Your task to perform on an android device: search for starred emails in the gmail app Image 0: 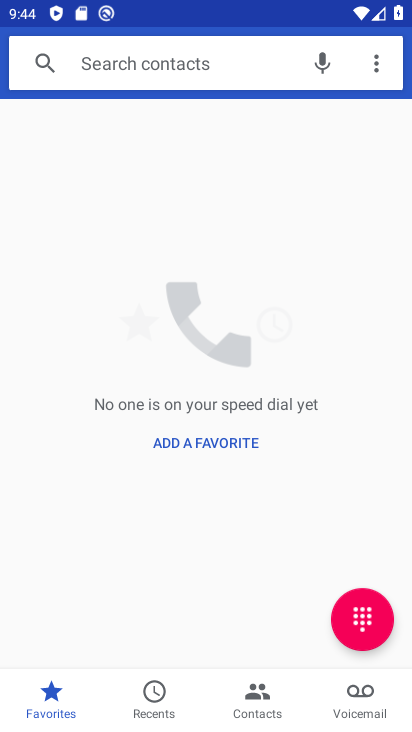
Step 0: press home button
Your task to perform on an android device: search for starred emails in the gmail app Image 1: 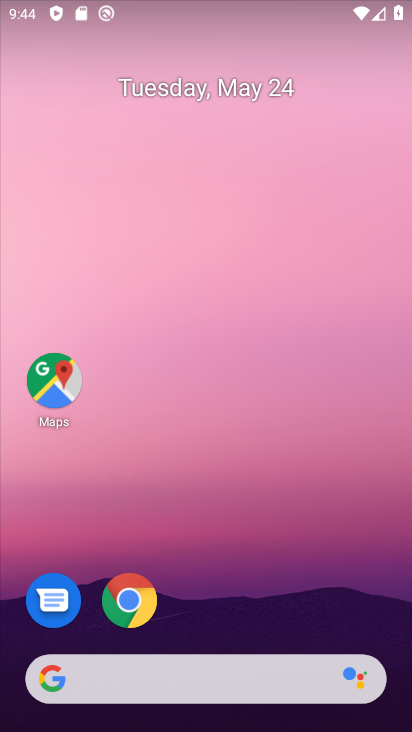
Step 1: drag from (241, 570) to (236, 20)
Your task to perform on an android device: search for starred emails in the gmail app Image 2: 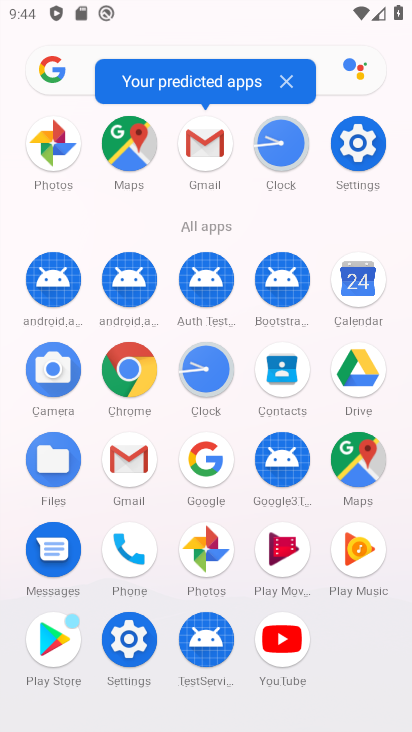
Step 2: click (204, 184)
Your task to perform on an android device: search for starred emails in the gmail app Image 3: 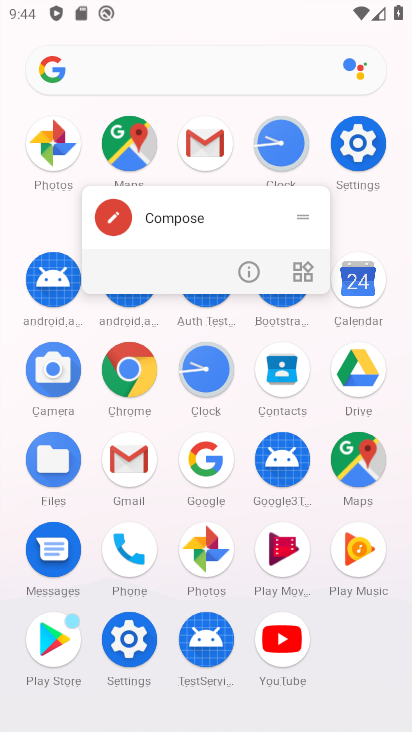
Step 3: click (214, 166)
Your task to perform on an android device: search for starred emails in the gmail app Image 4: 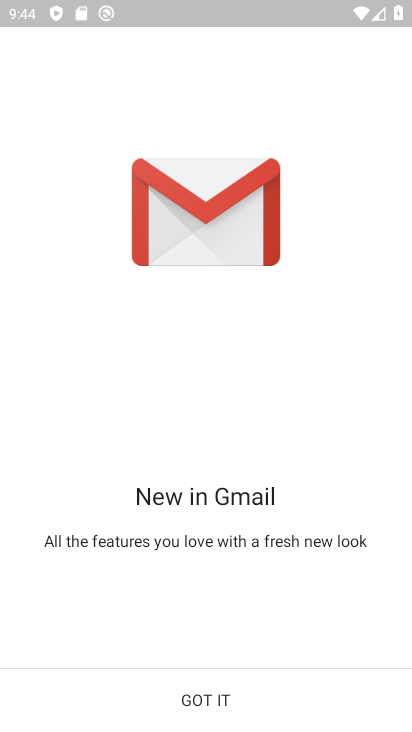
Step 4: click (209, 691)
Your task to perform on an android device: search for starred emails in the gmail app Image 5: 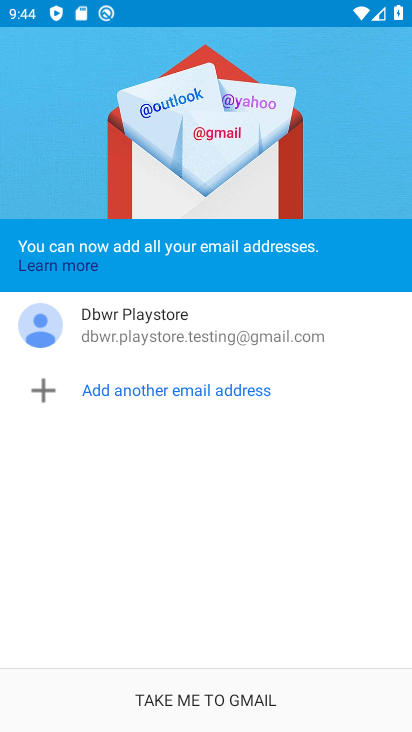
Step 5: click (209, 691)
Your task to perform on an android device: search for starred emails in the gmail app Image 6: 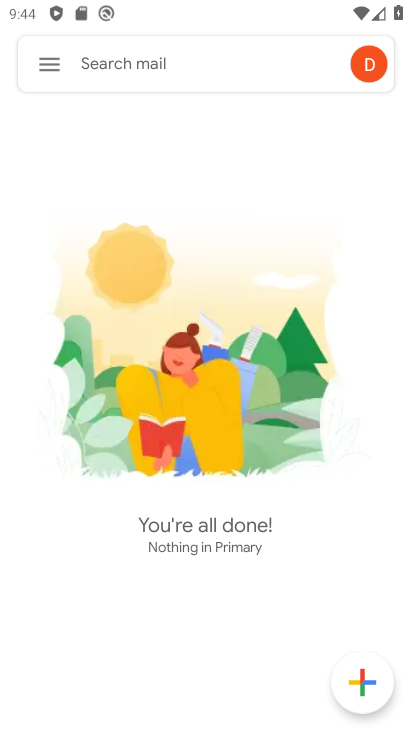
Step 6: click (51, 67)
Your task to perform on an android device: search for starred emails in the gmail app Image 7: 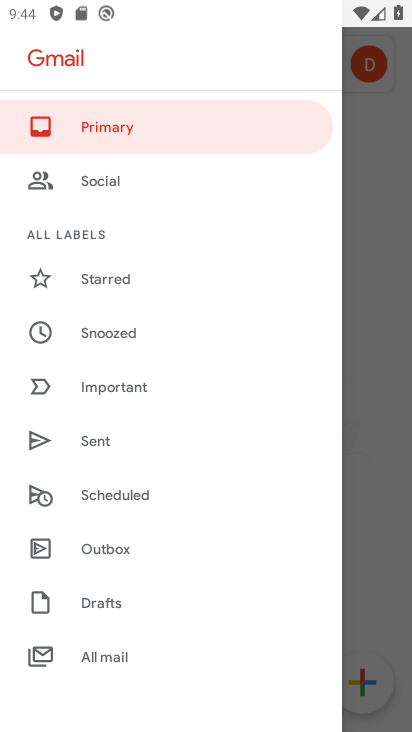
Step 7: click (132, 299)
Your task to perform on an android device: search for starred emails in the gmail app Image 8: 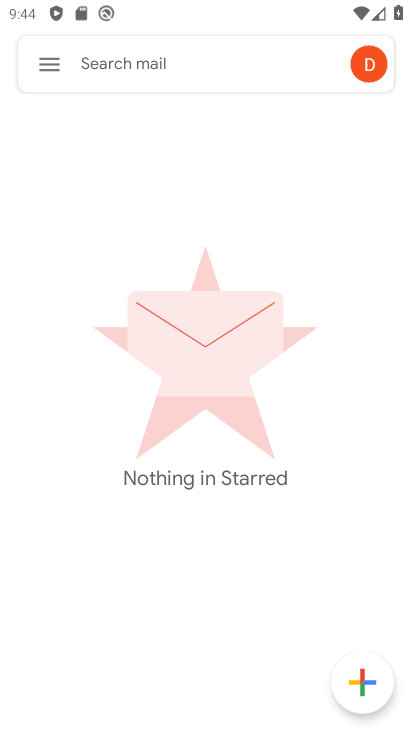
Step 8: task complete